Your task to perform on an android device: Open CNN.com Image 0: 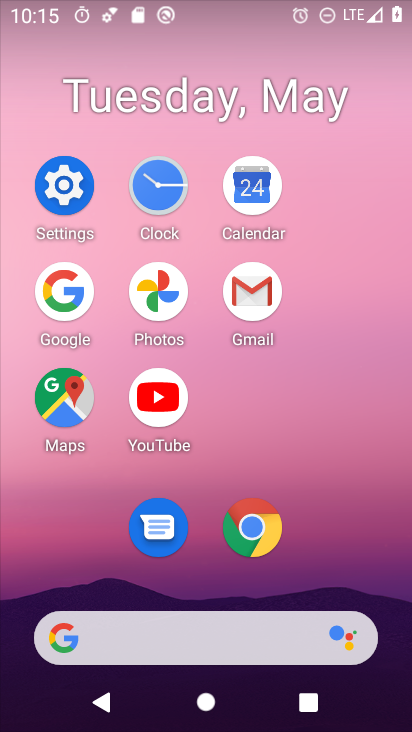
Step 0: click (251, 535)
Your task to perform on an android device: Open CNN.com Image 1: 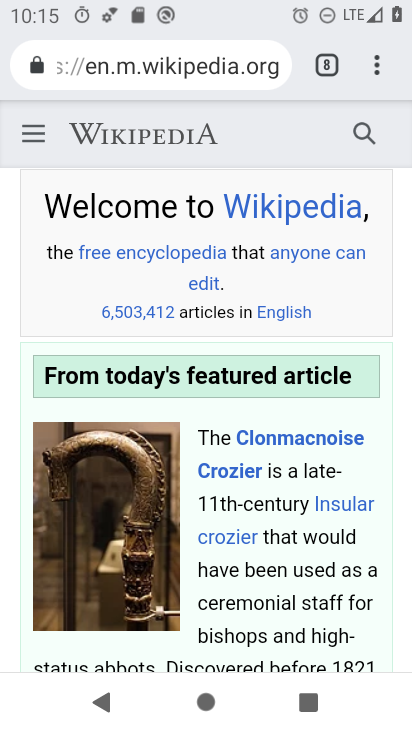
Step 1: click (331, 67)
Your task to perform on an android device: Open CNN.com Image 2: 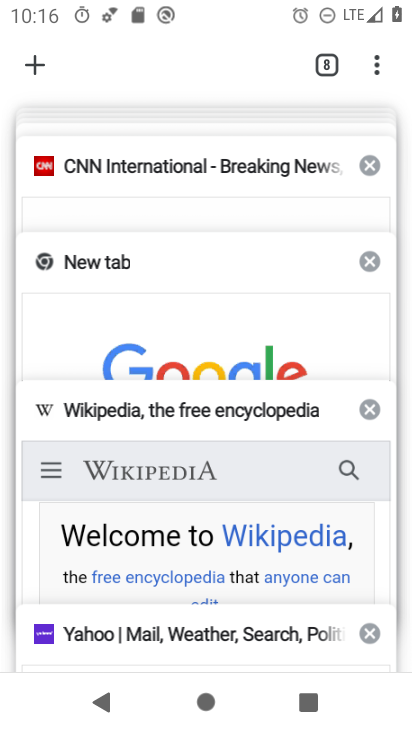
Step 2: click (155, 176)
Your task to perform on an android device: Open CNN.com Image 3: 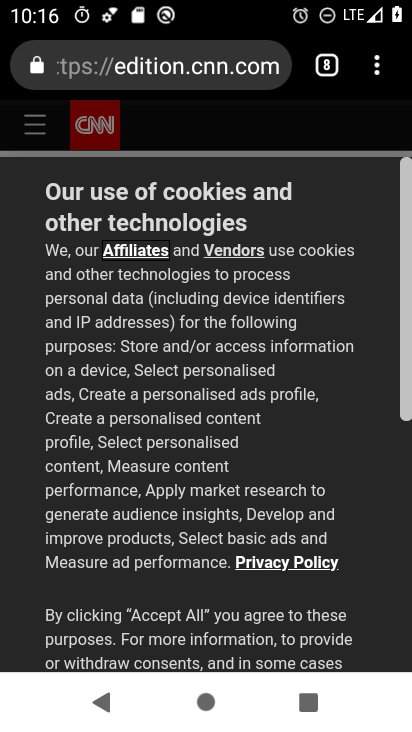
Step 3: task complete